Your task to perform on an android device: open device folders in google photos Image 0: 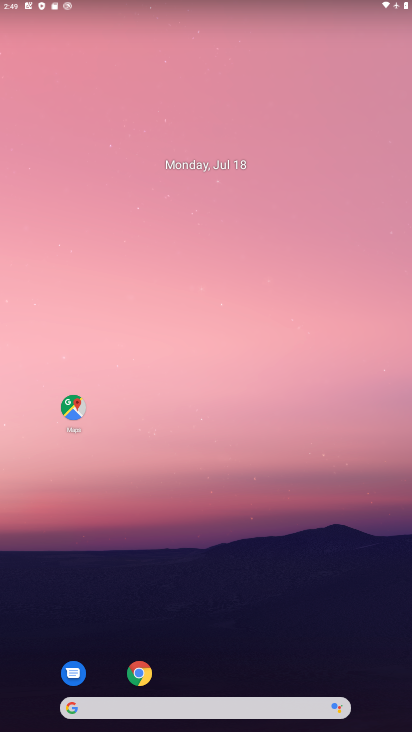
Step 0: drag from (264, 658) to (275, 314)
Your task to perform on an android device: open device folders in google photos Image 1: 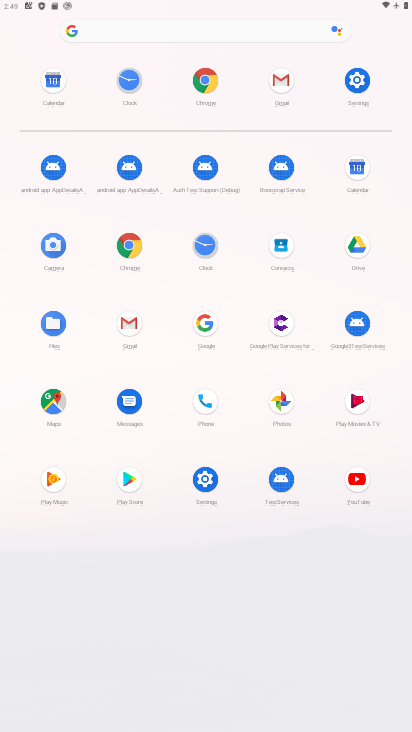
Step 1: click (281, 397)
Your task to perform on an android device: open device folders in google photos Image 2: 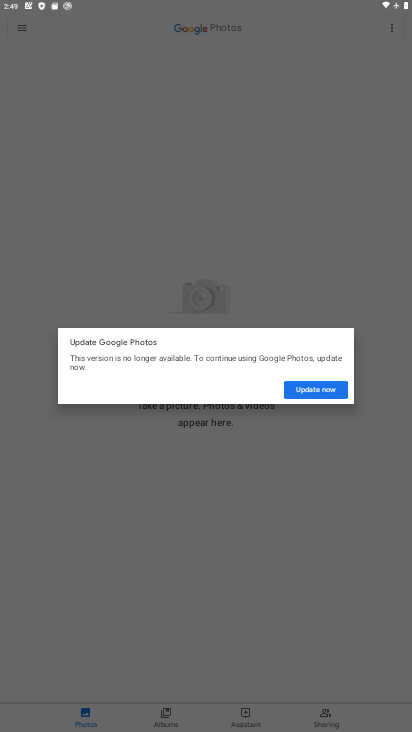
Step 2: click (311, 386)
Your task to perform on an android device: open device folders in google photos Image 3: 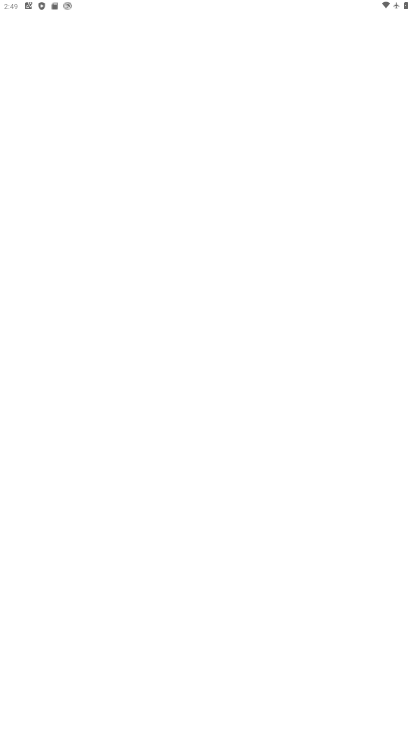
Step 3: press back button
Your task to perform on an android device: open device folders in google photos Image 4: 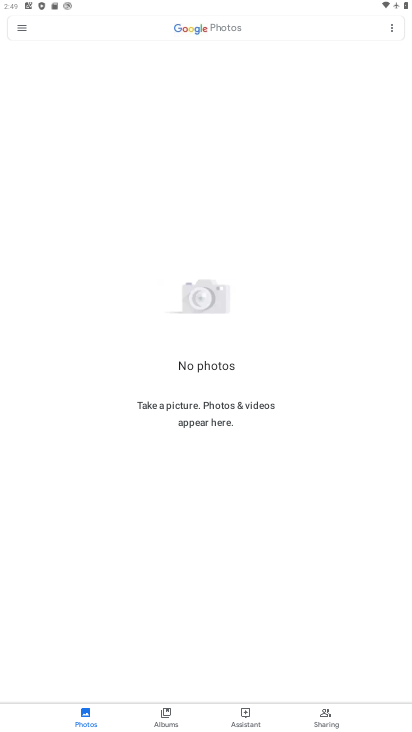
Step 4: click (154, 708)
Your task to perform on an android device: open device folders in google photos Image 5: 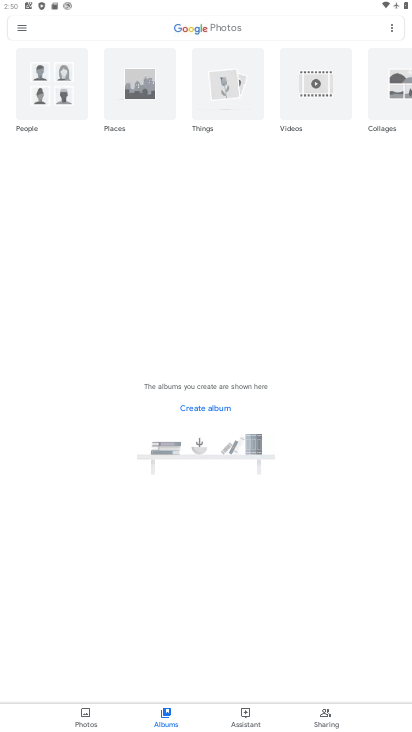
Step 5: task complete